Your task to perform on an android device: change text size in settings app Image 0: 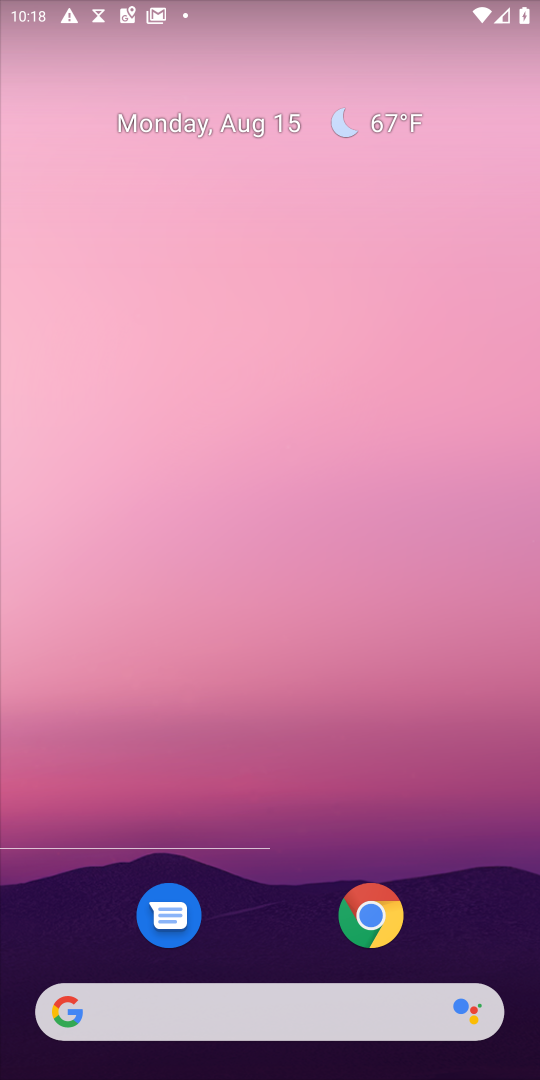
Step 0: press home button
Your task to perform on an android device: change text size in settings app Image 1: 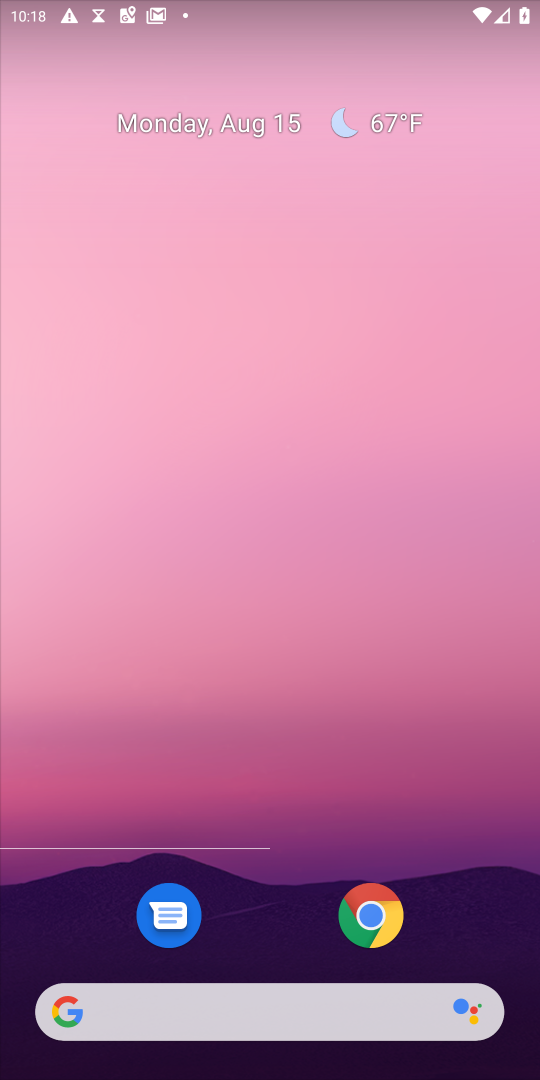
Step 1: drag from (296, 953) to (308, 203)
Your task to perform on an android device: change text size in settings app Image 2: 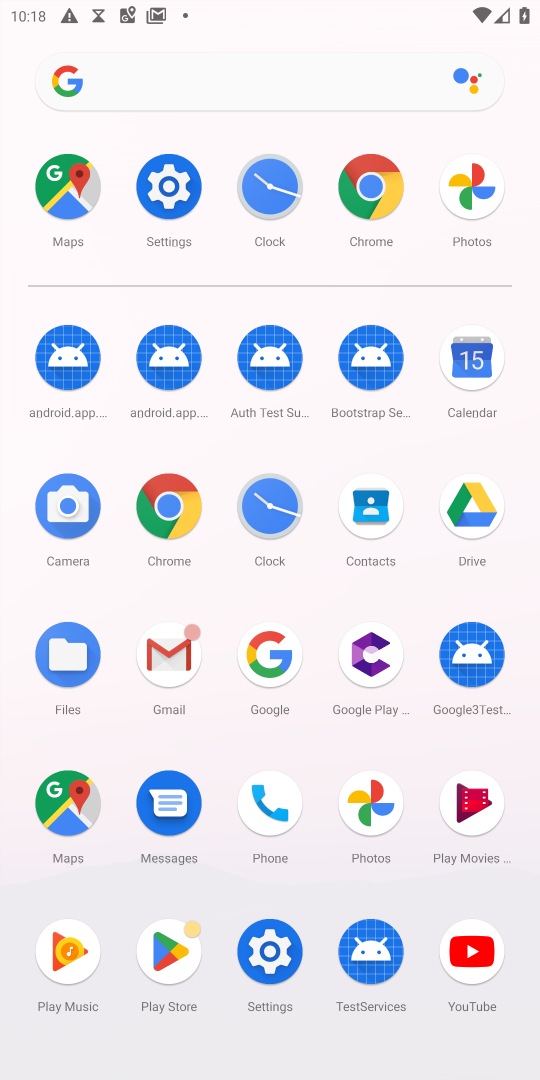
Step 2: click (182, 185)
Your task to perform on an android device: change text size in settings app Image 3: 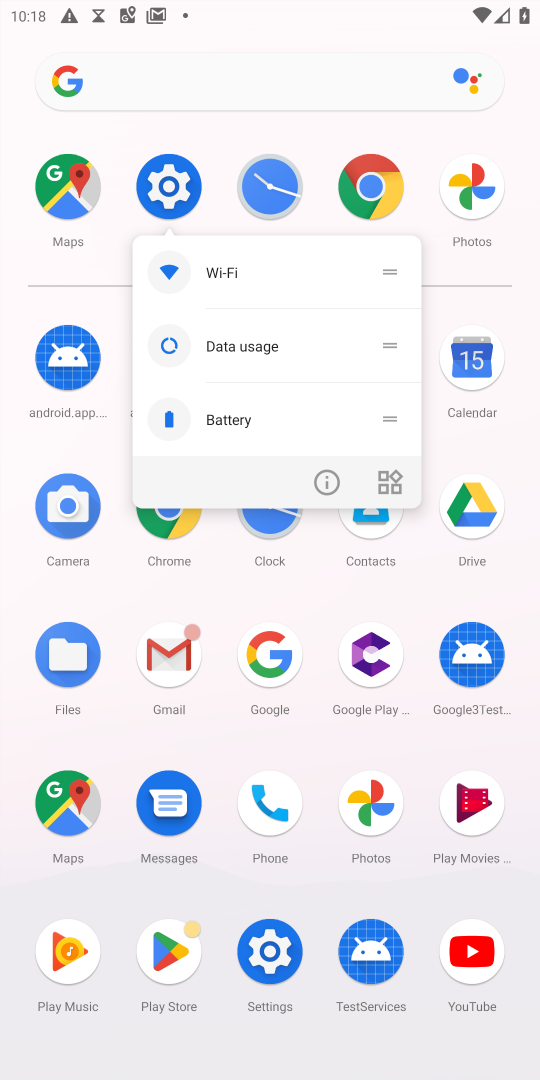
Step 3: click (160, 175)
Your task to perform on an android device: change text size in settings app Image 4: 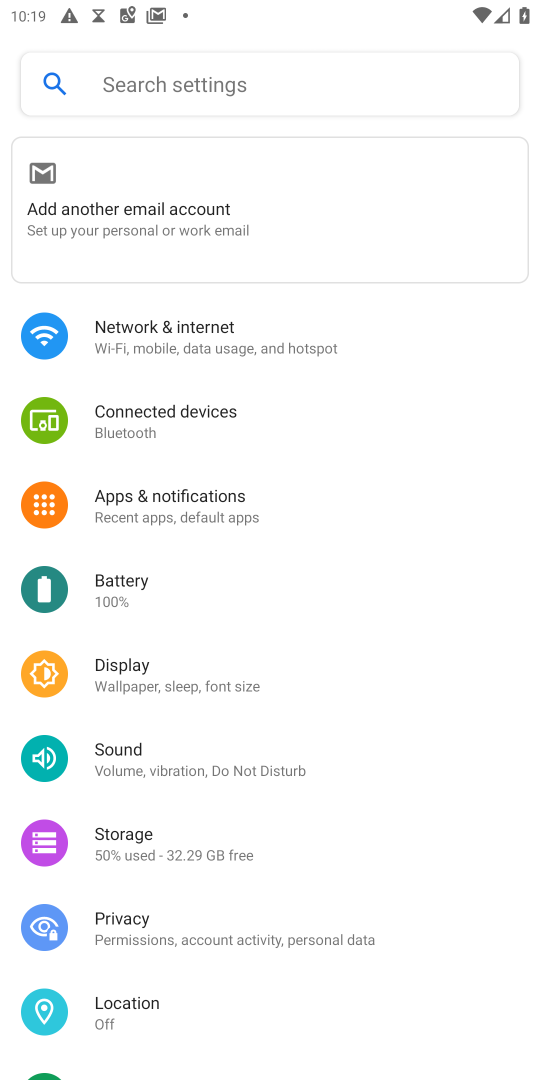
Step 4: click (157, 665)
Your task to perform on an android device: change text size in settings app Image 5: 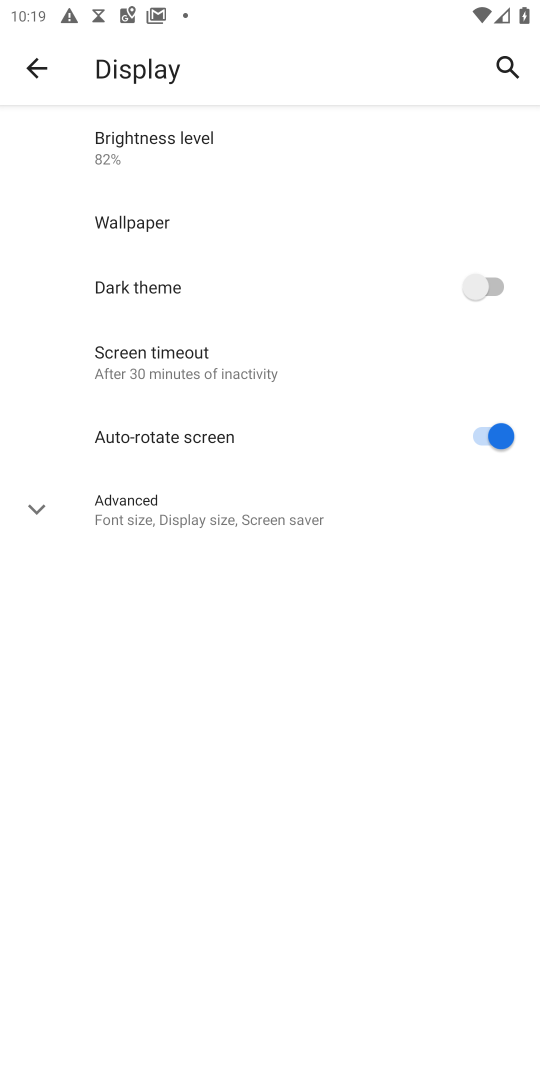
Step 5: click (54, 504)
Your task to perform on an android device: change text size in settings app Image 6: 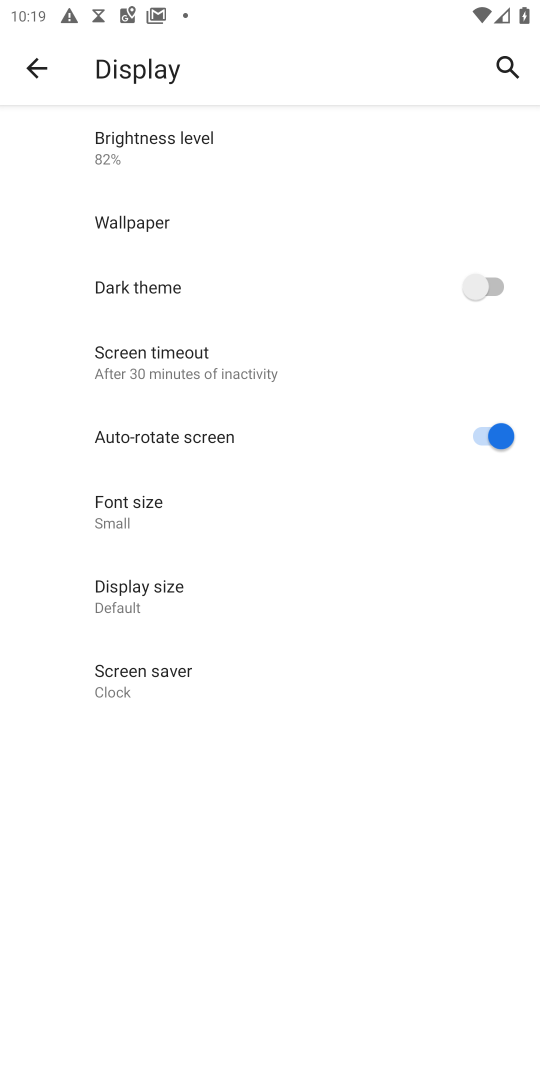
Step 6: click (231, 517)
Your task to perform on an android device: change text size in settings app Image 7: 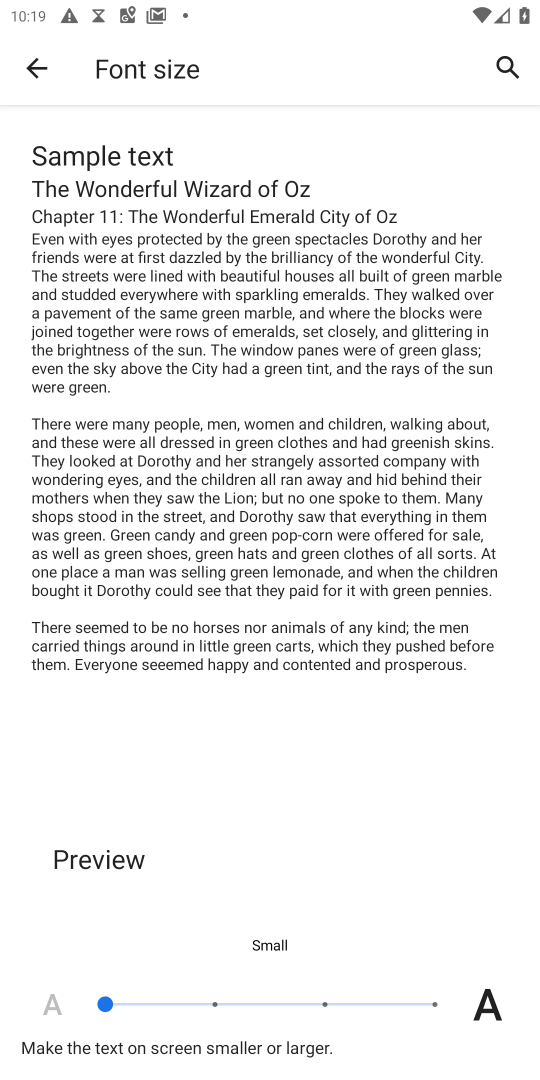
Step 7: click (216, 992)
Your task to perform on an android device: change text size in settings app Image 8: 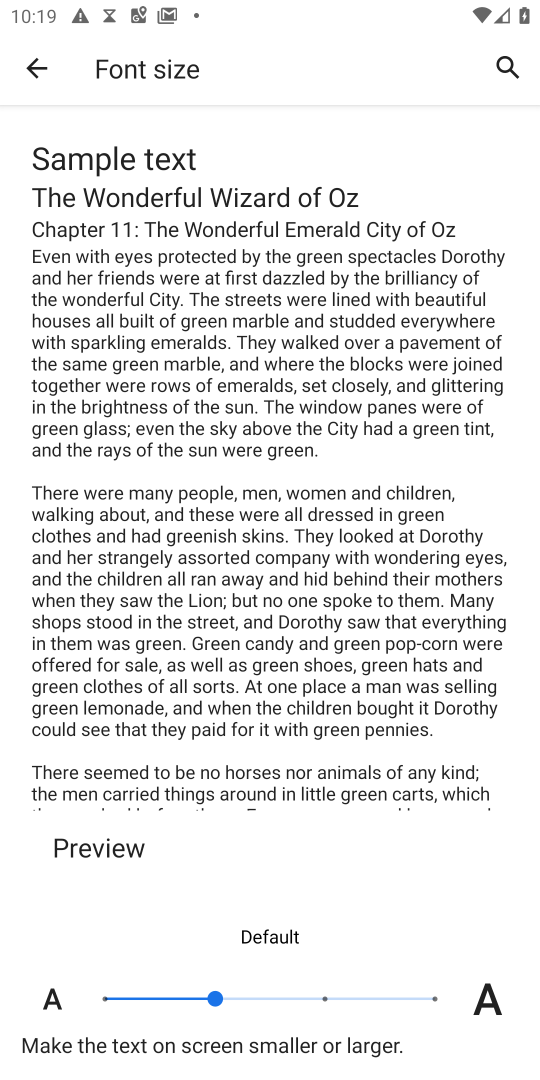
Step 8: task complete